Your task to perform on an android device: Open Yahoo.com Image 0: 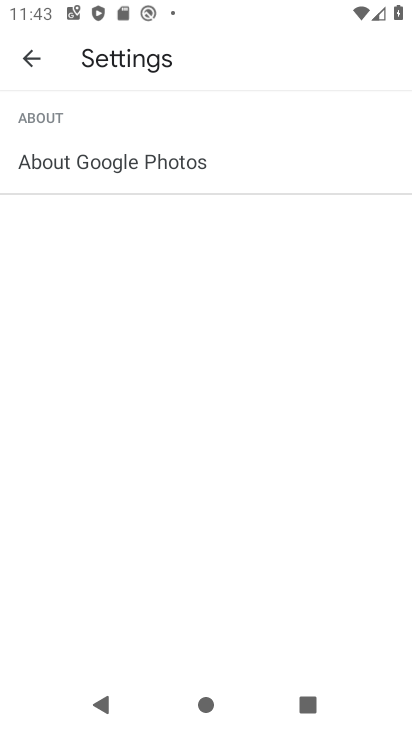
Step 0: press home button
Your task to perform on an android device: Open Yahoo.com Image 1: 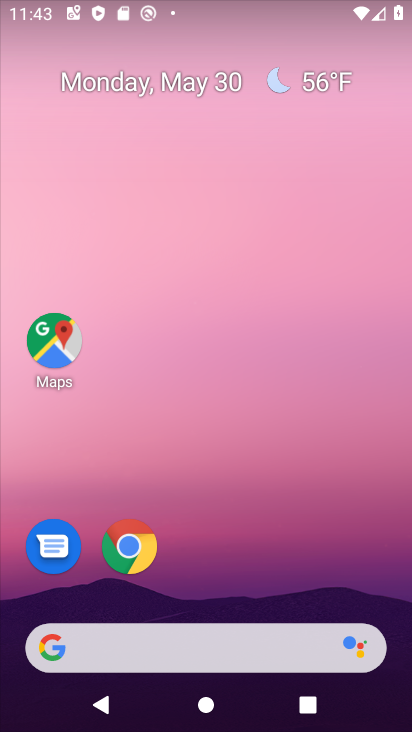
Step 1: click (130, 547)
Your task to perform on an android device: Open Yahoo.com Image 2: 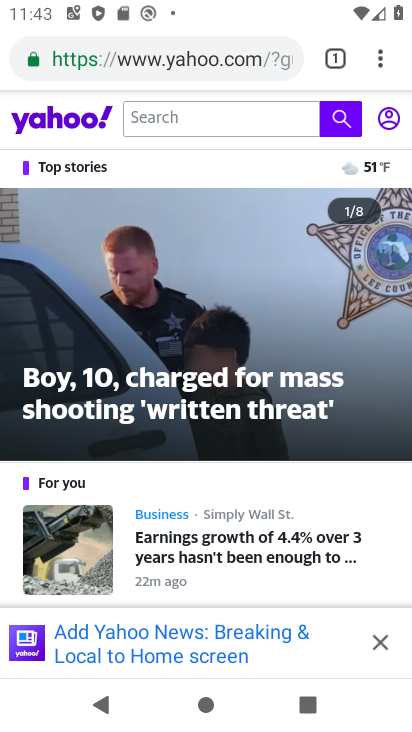
Step 2: click (283, 56)
Your task to perform on an android device: Open Yahoo.com Image 3: 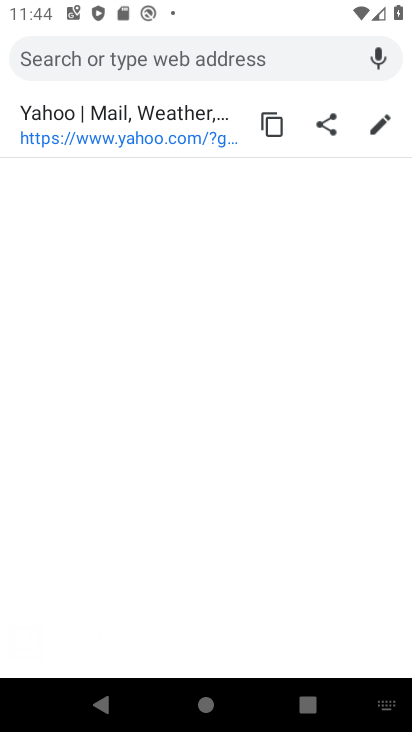
Step 3: click (143, 112)
Your task to perform on an android device: Open Yahoo.com Image 4: 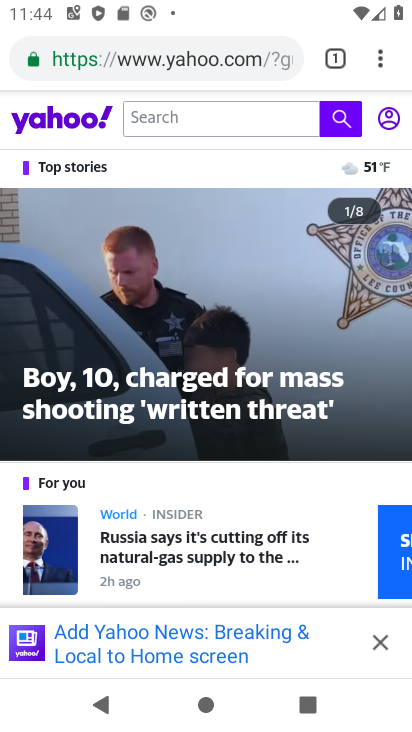
Step 4: task complete